Your task to perform on an android device: Go to Reddit.com Image 0: 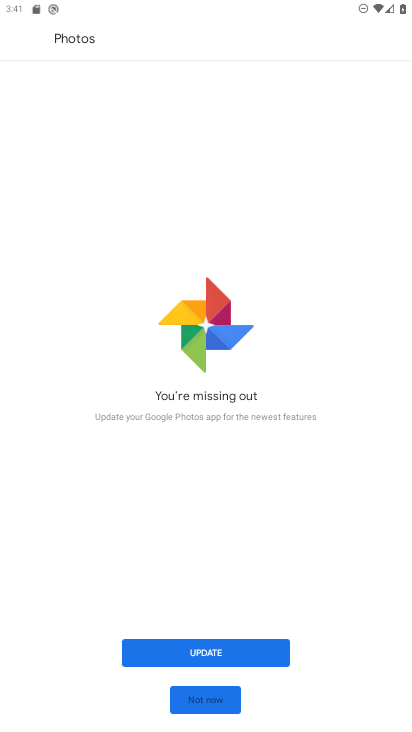
Step 0: press home button
Your task to perform on an android device: Go to Reddit.com Image 1: 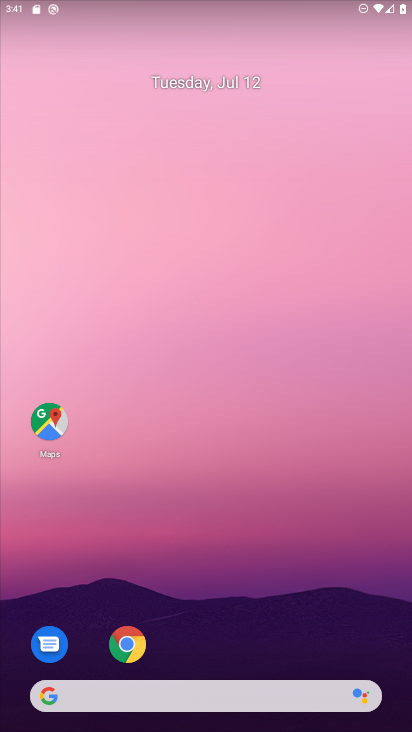
Step 1: drag from (276, 522) to (223, 206)
Your task to perform on an android device: Go to Reddit.com Image 2: 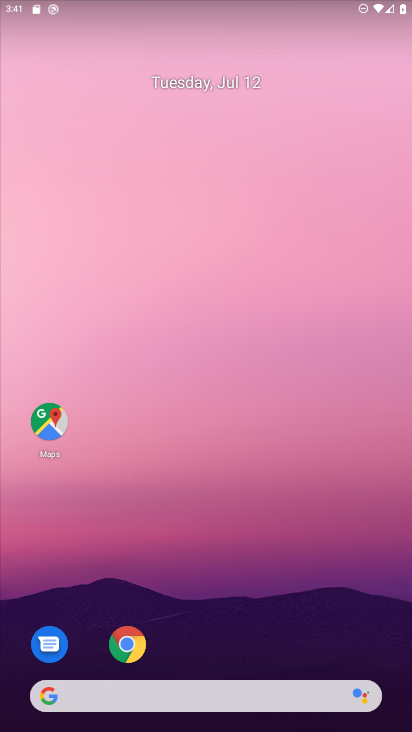
Step 2: drag from (310, 607) to (259, 61)
Your task to perform on an android device: Go to Reddit.com Image 3: 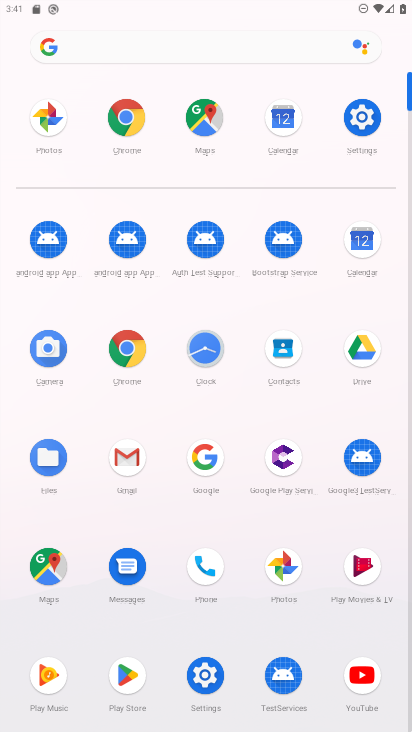
Step 3: click (132, 347)
Your task to perform on an android device: Go to Reddit.com Image 4: 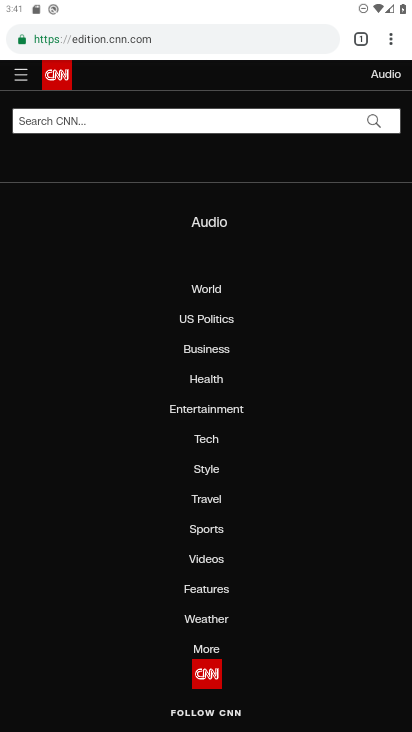
Step 4: click (209, 38)
Your task to perform on an android device: Go to Reddit.com Image 5: 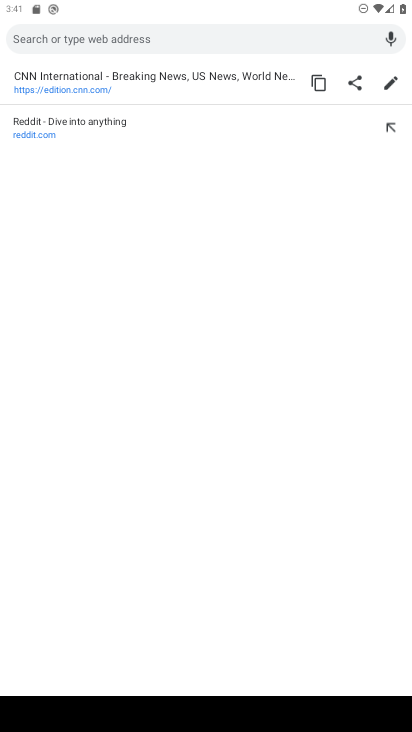
Step 5: type "reddit.com"
Your task to perform on an android device: Go to Reddit.com Image 6: 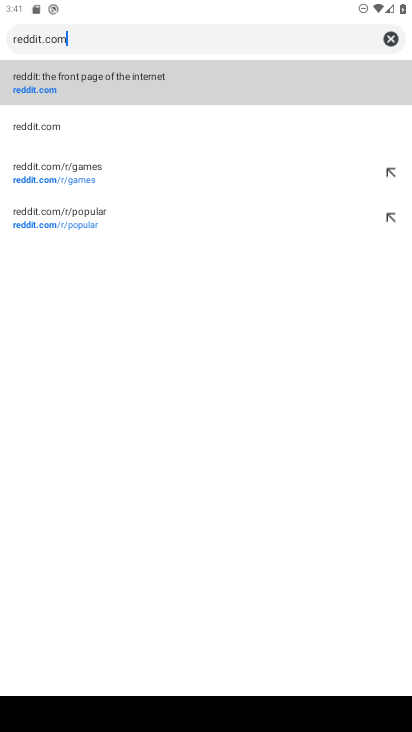
Step 6: click (60, 86)
Your task to perform on an android device: Go to Reddit.com Image 7: 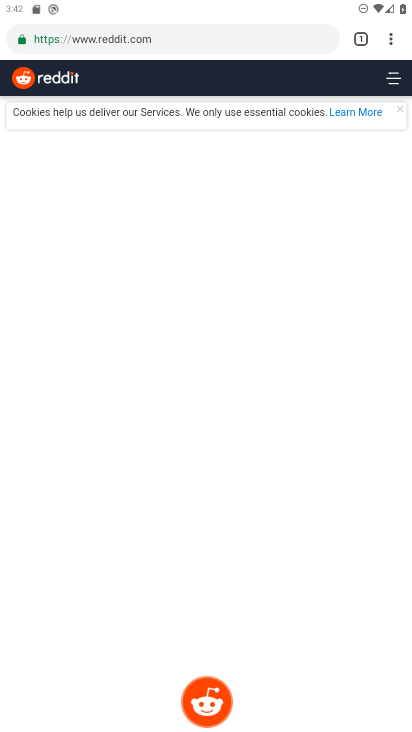
Step 7: task complete